Your task to perform on an android device: add a label to a message in the gmail app Image 0: 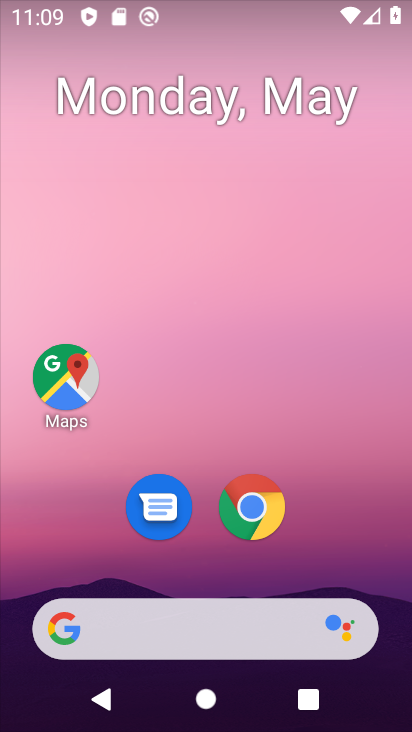
Step 0: drag from (326, 542) to (294, 257)
Your task to perform on an android device: add a label to a message in the gmail app Image 1: 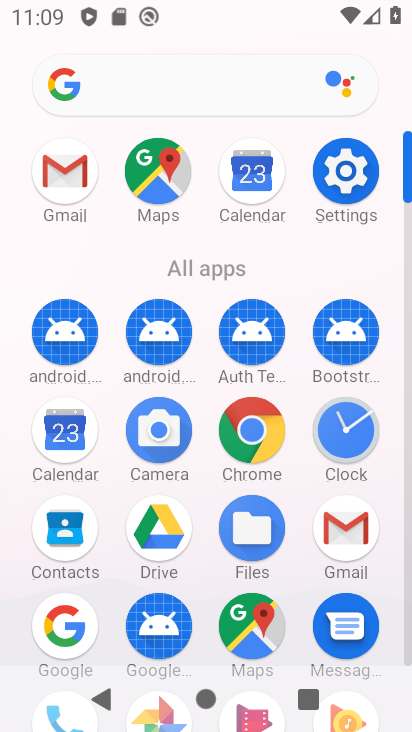
Step 1: click (68, 164)
Your task to perform on an android device: add a label to a message in the gmail app Image 2: 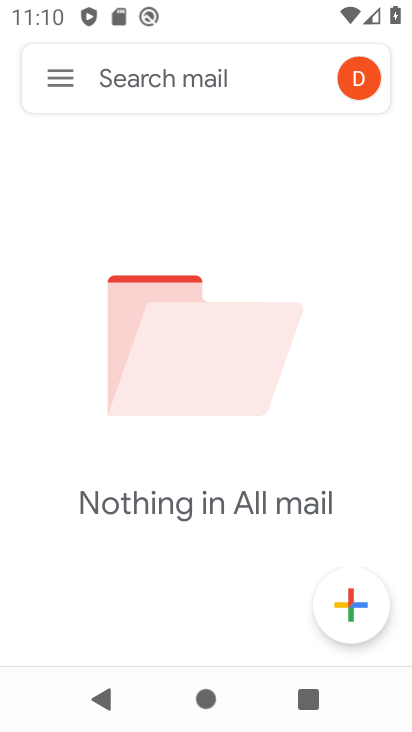
Step 2: click (57, 66)
Your task to perform on an android device: add a label to a message in the gmail app Image 3: 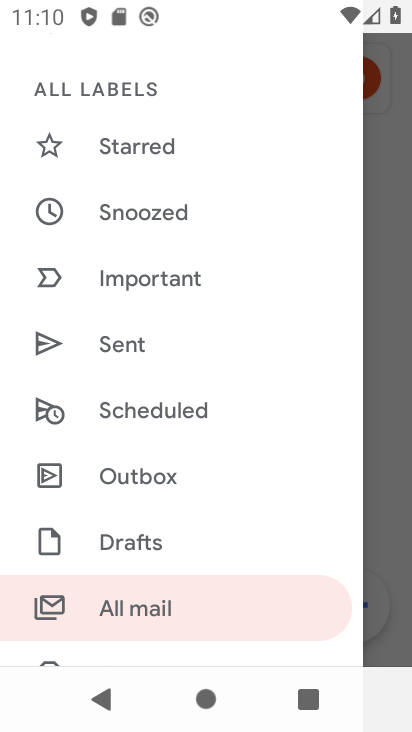
Step 3: task complete